Your task to perform on an android device: turn on the 24-hour format for clock Image 0: 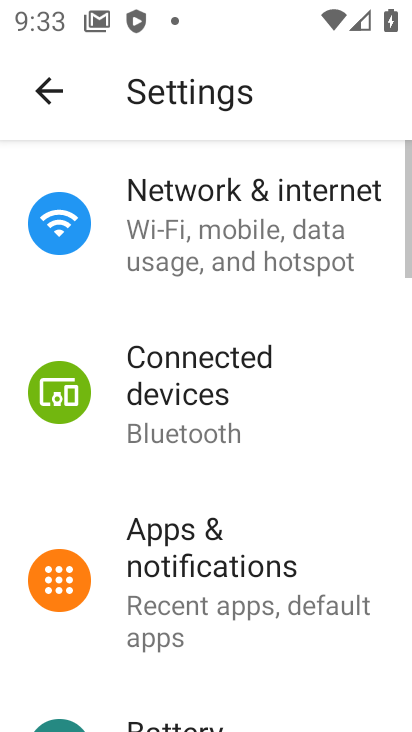
Step 0: press home button
Your task to perform on an android device: turn on the 24-hour format for clock Image 1: 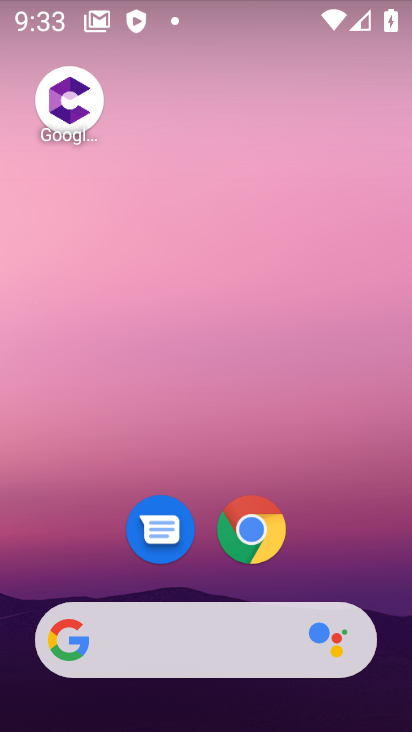
Step 1: drag from (367, 569) to (176, 48)
Your task to perform on an android device: turn on the 24-hour format for clock Image 2: 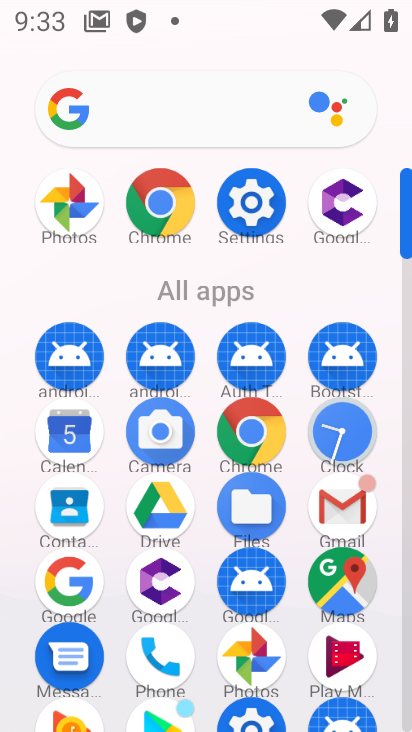
Step 2: click (343, 433)
Your task to perform on an android device: turn on the 24-hour format for clock Image 3: 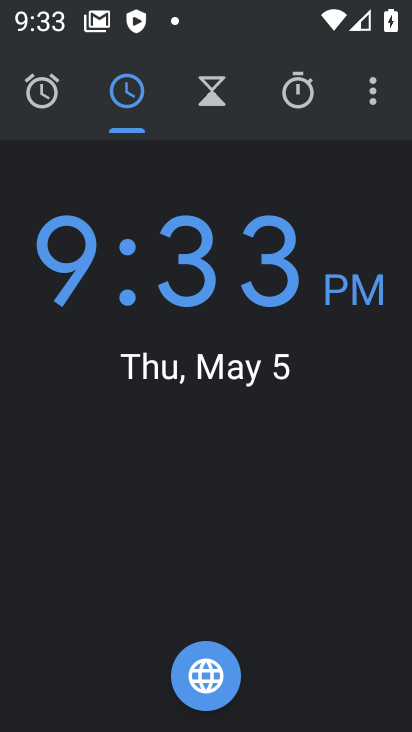
Step 3: click (367, 94)
Your task to perform on an android device: turn on the 24-hour format for clock Image 4: 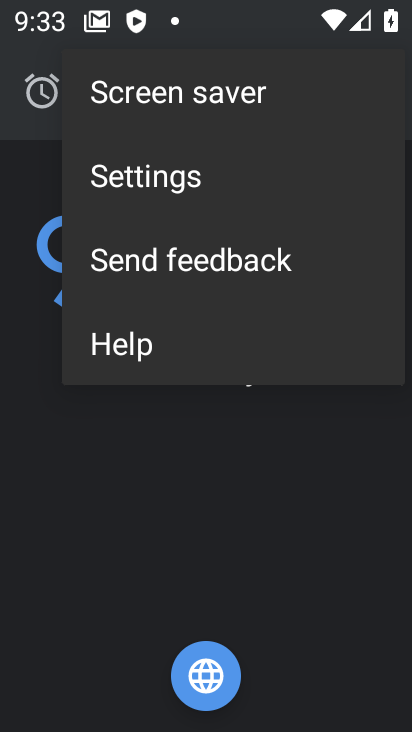
Step 4: click (161, 178)
Your task to perform on an android device: turn on the 24-hour format for clock Image 5: 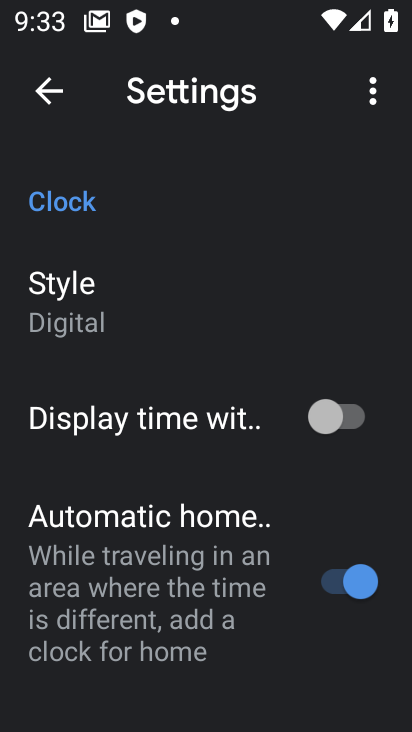
Step 5: drag from (197, 531) to (99, 157)
Your task to perform on an android device: turn on the 24-hour format for clock Image 6: 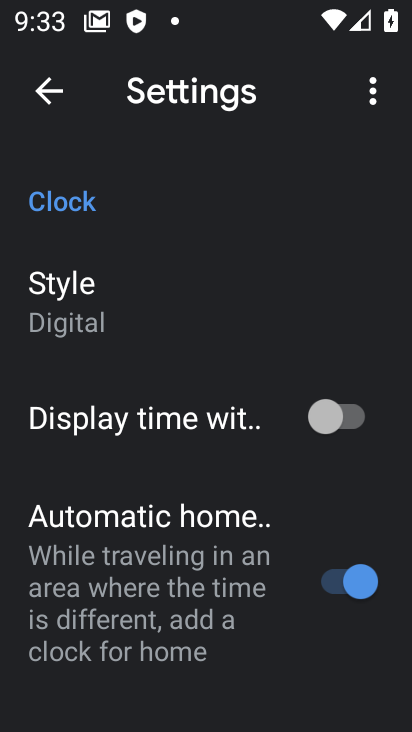
Step 6: drag from (223, 478) to (175, 68)
Your task to perform on an android device: turn on the 24-hour format for clock Image 7: 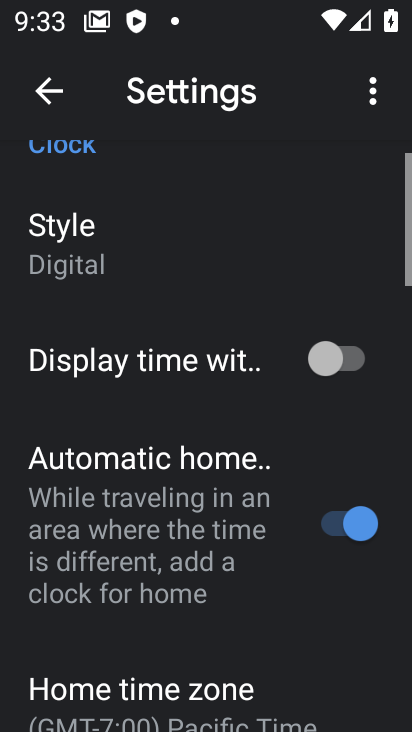
Step 7: drag from (171, 308) to (179, 6)
Your task to perform on an android device: turn on the 24-hour format for clock Image 8: 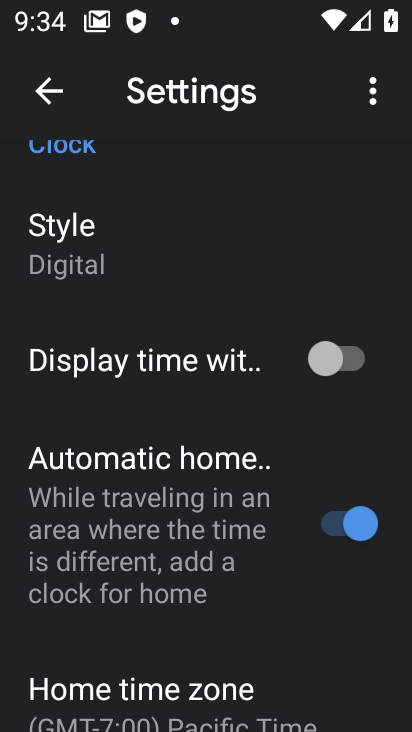
Step 8: drag from (173, 591) to (108, 43)
Your task to perform on an android device: turn on the 24-hour format for clock Image 9: 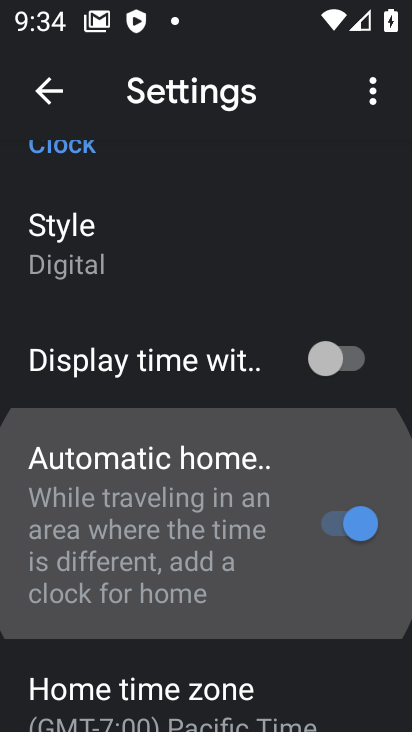
Step 9: drag from (166, 602) to (102, 68)
Your task to perform on an android device: turn on the 24-hour format for clock Image 10: 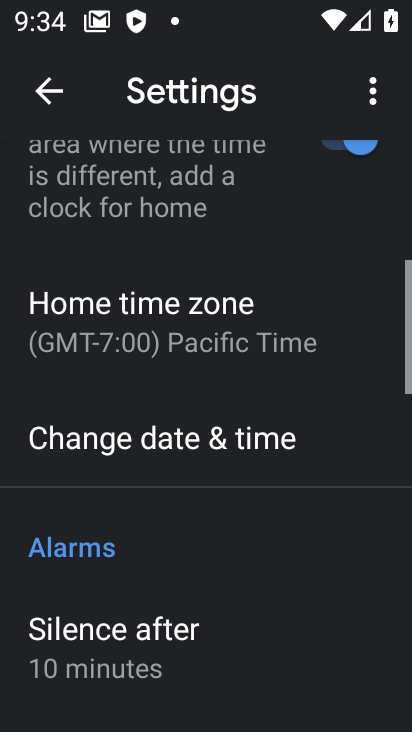
Step 10: drag from (250, 511) to (129, 117)
Your task to perform on an android device: turn on the 24-hour format for clock Image 11: 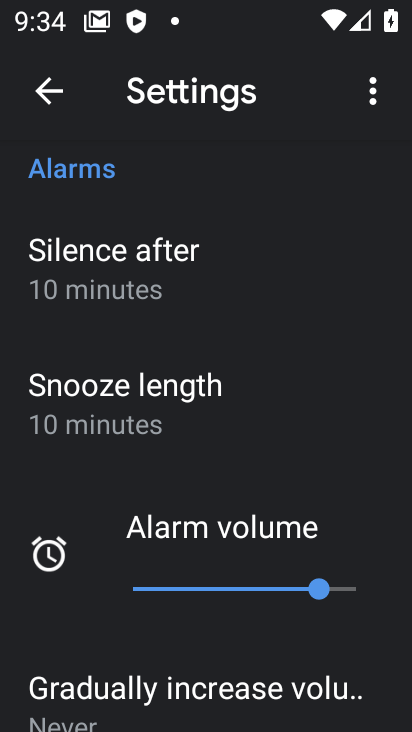
Step 11: click (182, 446)
Your task to perform on an android device: turn on the 24-hour format for clock Image 12: 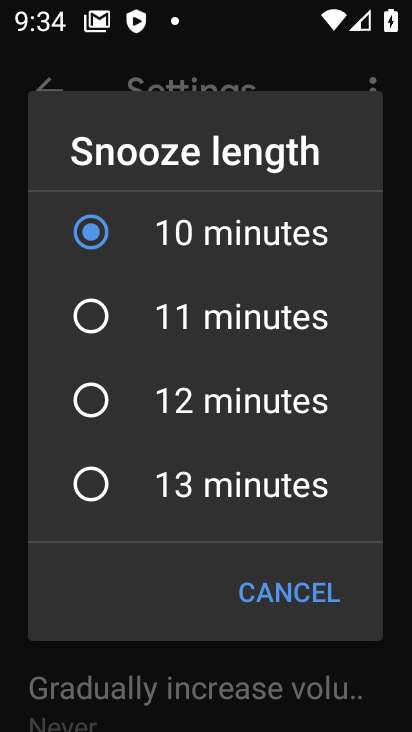
Step 12: click (274, 590)
Your task to perform on an android device: turn on the 24-hour format for clock Image 13: 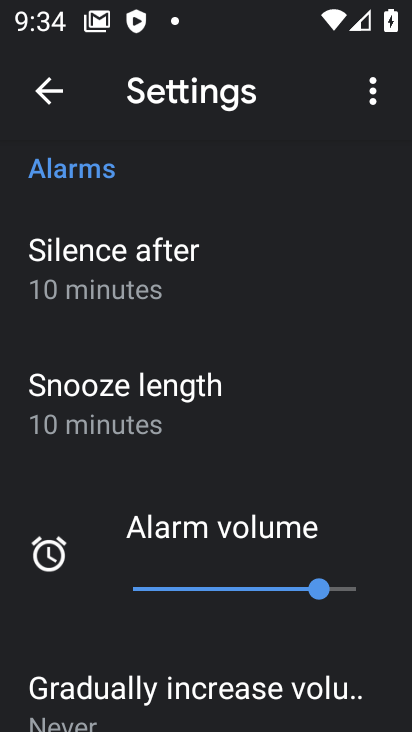
Step 13: click (50, 97)
Your task to perform on an android device: turn on the 24-hour format for clock Image 14: 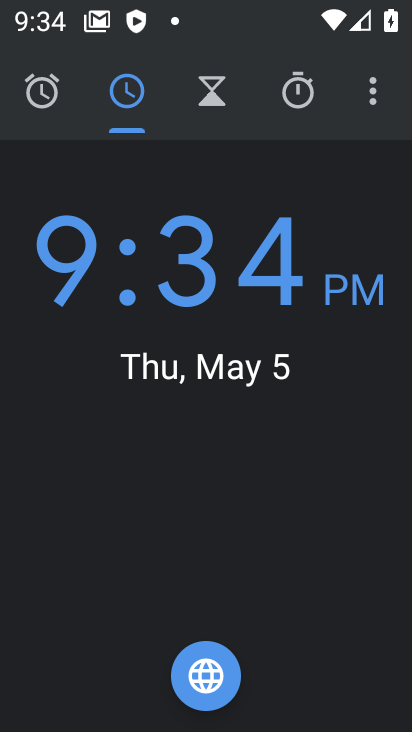
Step 14: click (366, 98)
Your task to perform on an android device: turn on the 24-hour format for clock Image 15: 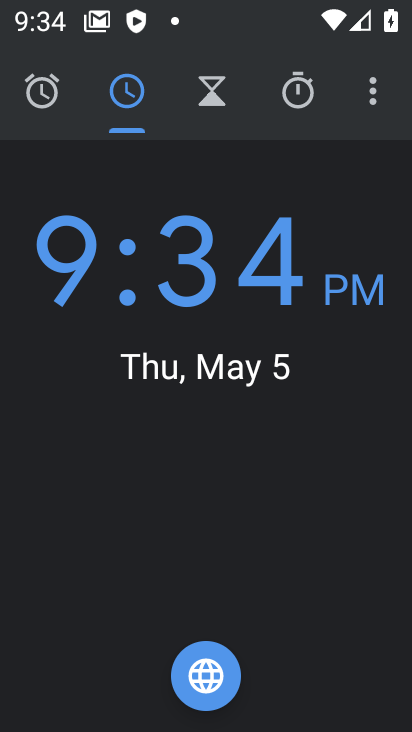
Step 15: click (369, 88)
Your task to perform on an android device: turn on the 24-hour format for clock Image 16: 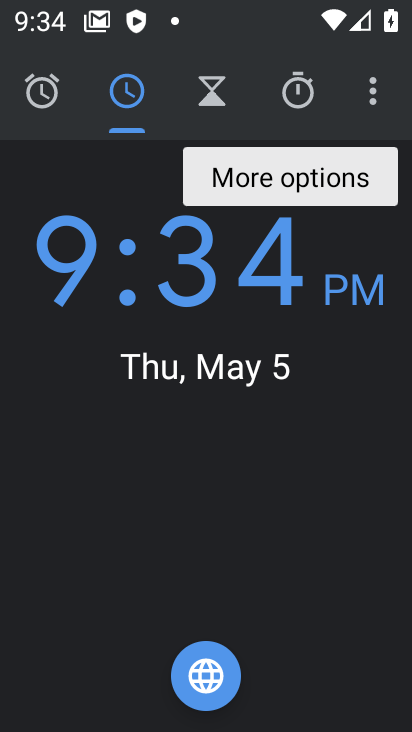
Step 16: click (348, 161)
Your task to perform on an android device: turn on the 24-hour format for clock Image 17: 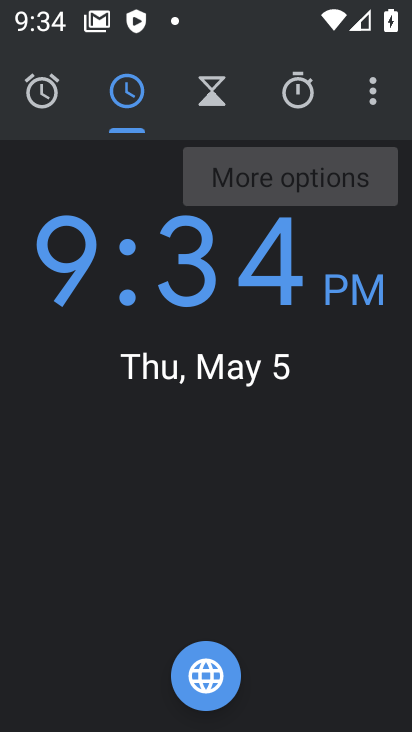
Step 17: click (349, 179)
Your task to perform on an android device: turn on the 24-hour format for clock Image 18: 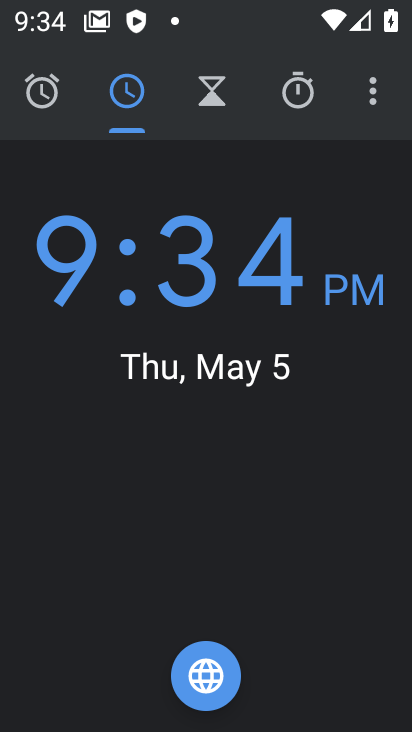
Step 18: click (349, 179)
Your task to perform on an android device: turn on the 24-hour format for clock Image 19: 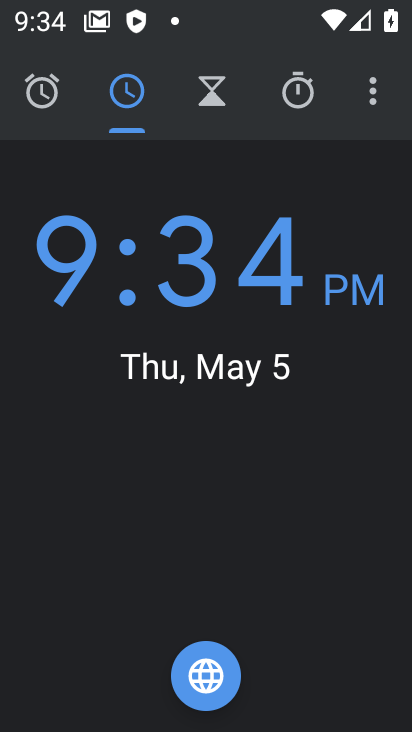
Step 19: click (350, 180)
Your task to perform on an android device: turn on the 24-hour format for clock Image 20: 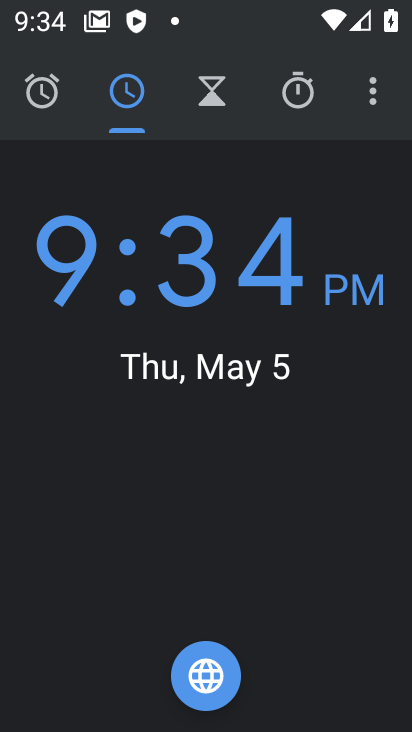
Step 20: click (350, 180)
Your task to perform on an android device: turn on the 24-hour format for clock Image 21: 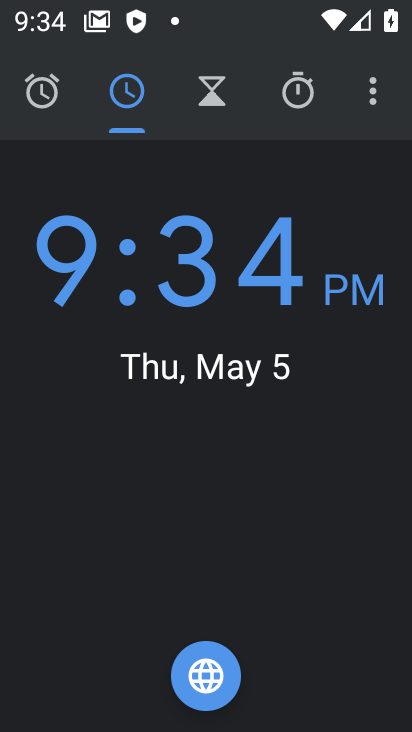
Step 21: click (380, 86)
Your task to perform on an android device: turn on the 24-hour format for clock Image 22: 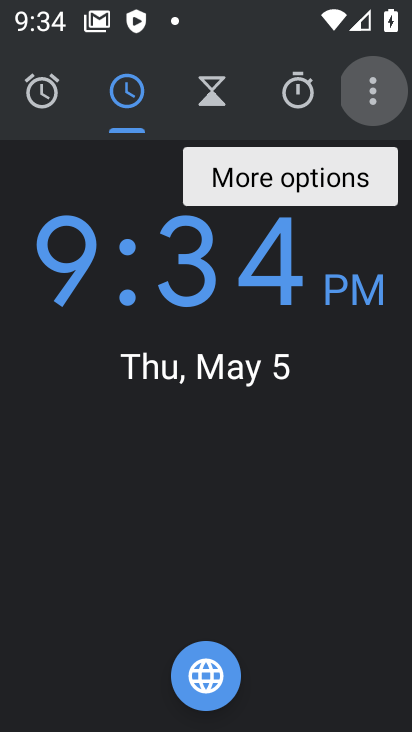
Step 22: click (364, 93)
Your task to perform on an android device: turn on the 24-hour format for clock Image 23: 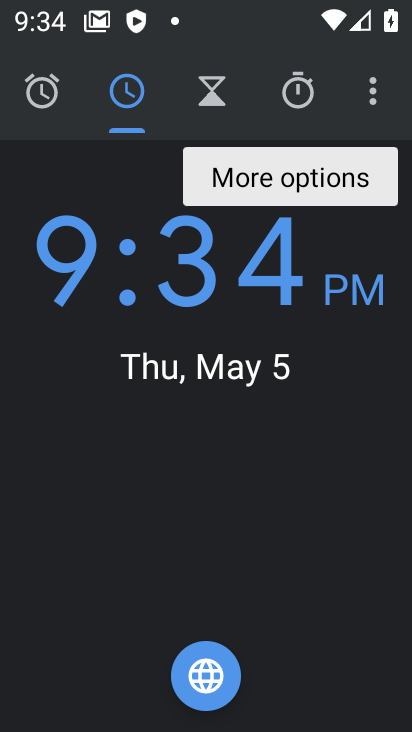
Step 23: click (364, 93)
Your task to perform on an android device: turn on the 24-hour format for clock Image 24: 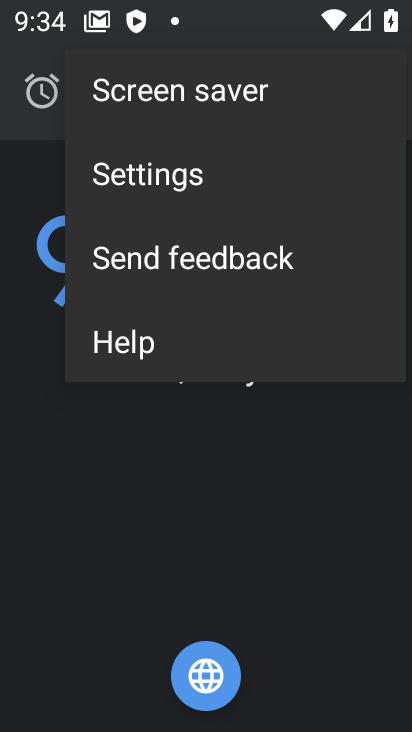
Step 24: click (364, 93)
Your task to perform on an android device: turn on the 24-hour format for clock Image 25: 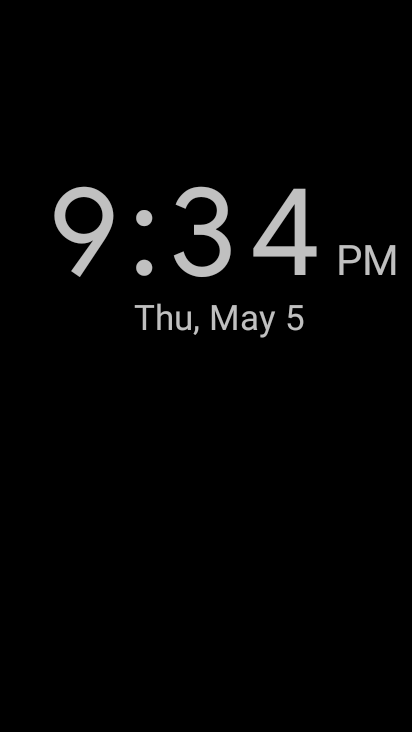
Step 25: press home button
Your task to perform on an android device: turn on the 24-hour format for clock Image 26: 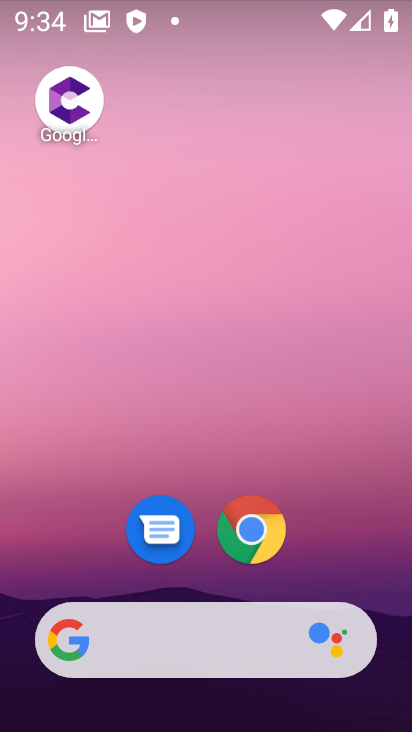
Step 26: drag from (322, 424) to (120, 31)
Your task to perform on an android device: turn on the 24-hour format for clock Image 27: 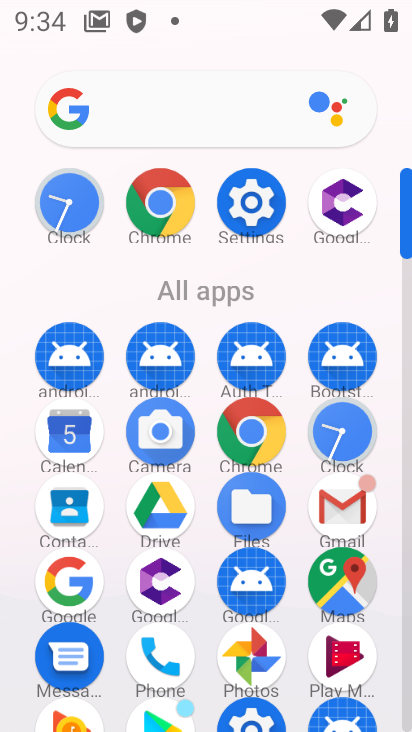
Step 27: click (245, 204)
Your task to perform on an android device: turn on the 24-hour format for clock Image 28: 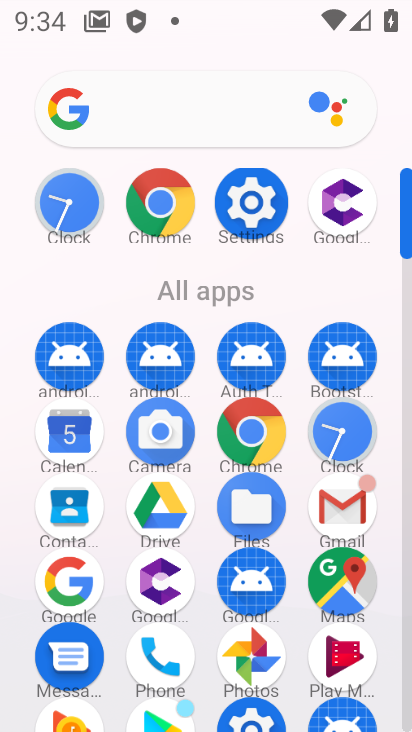
Step 28: click (245, 204)
Your task to perform on an android device: turn on the 24-hour format for clock Image 29: 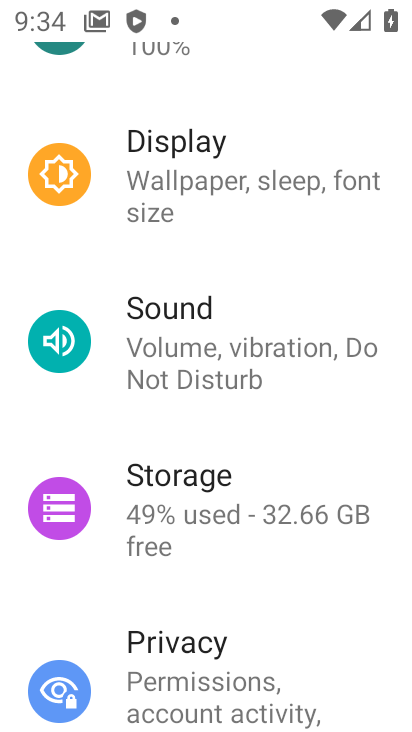
Step 29: click (245, 204)
Your task to perform on an android device: turn on the 24-hour format for clock Image 30: 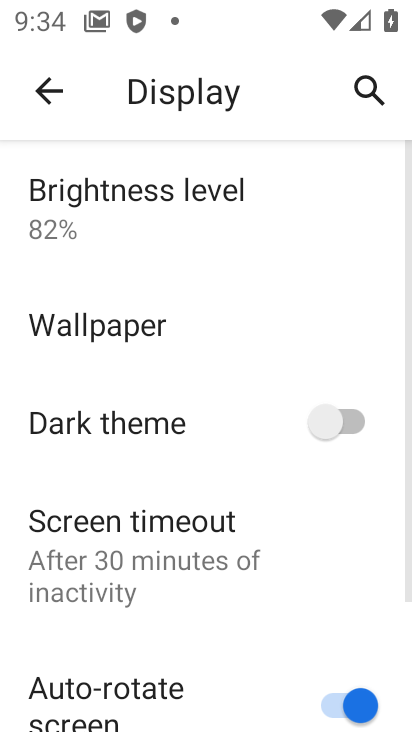
Step 30: press home button
Your task to perform on an android device: turn on the 24-hour format for clock Image 31: 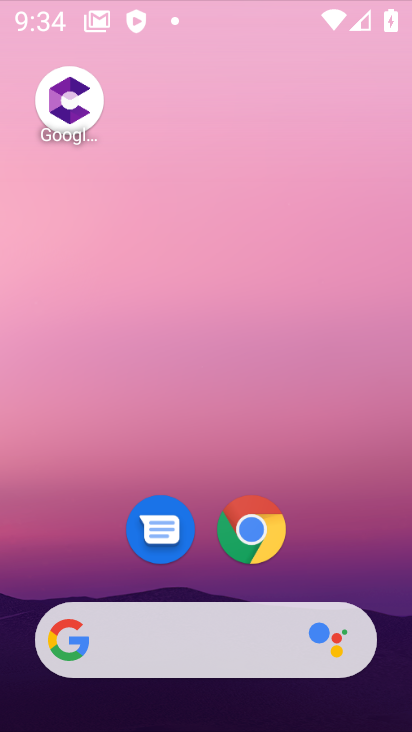
Step 31: press home button
Your task to perform on an android device: turn on the 24-hour format for clock Image 32: 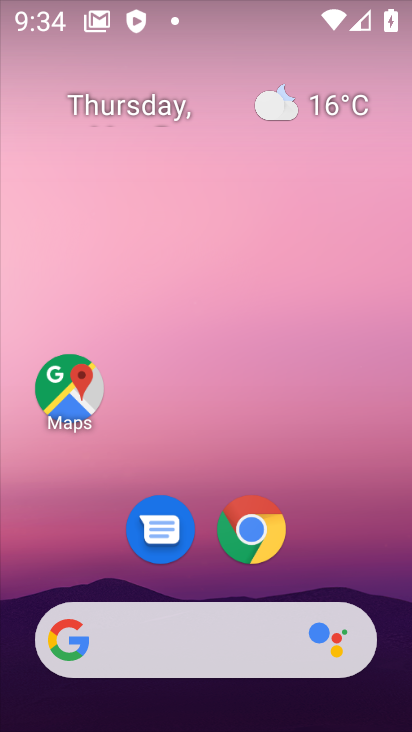
Step 32: drag from (328, 491) to (184, 162)
Your task to perform on an android device: turn on the 24-hour format for clock Image 33: 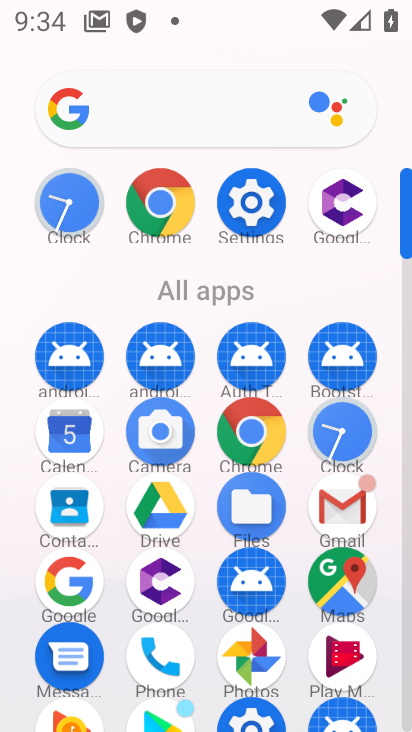
Step 33: click (335, 425)
Your task to perform on an android device: turn on the 24-hour format for clock Image 34: 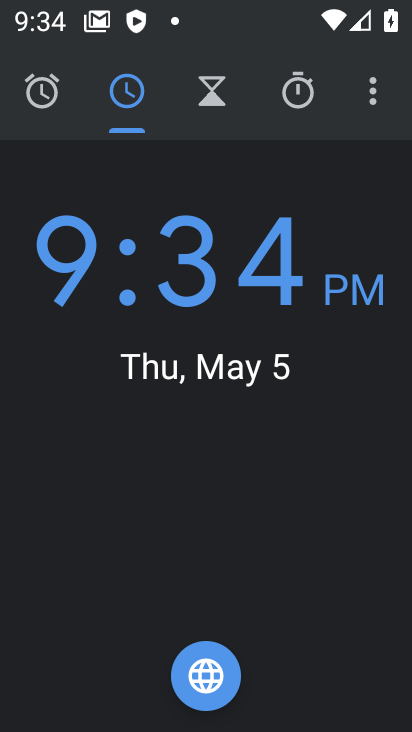
Step 34: click (366, 94)
Your task to perform on an android device: turn on the 24-hour format for clock Image 35: 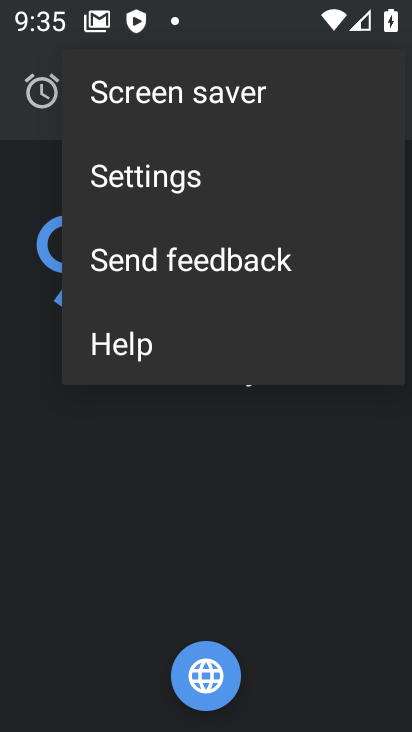
Step 35: click (120, 182)
Your task to perform on an android device: turn on the 24-hour format for clock Image 36: 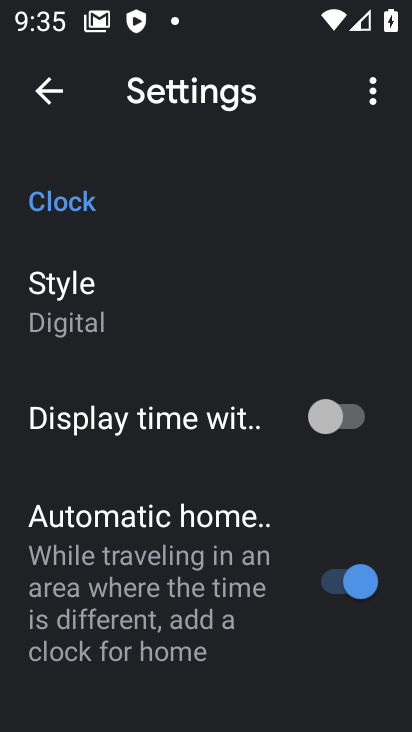
Step 36: drag from (260, 620) to (184, 254)
Your task to perform on an android device: turn on the 24-hour format for clock Image 37: 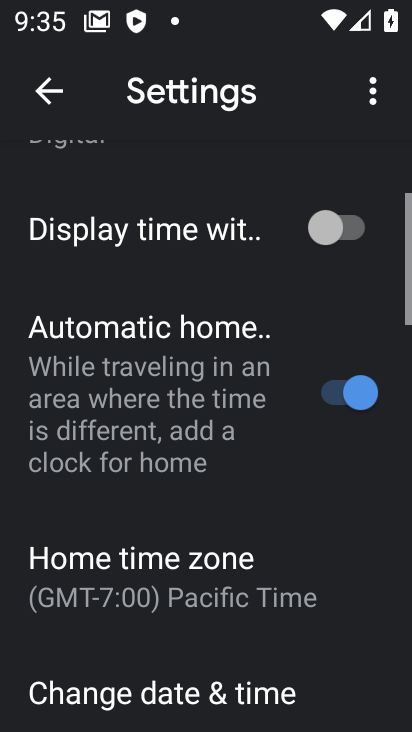
Step 37: drag from (280, 538) to (196, 146)
Your task to perform on an android device: turn on the 24-hour format for clock Image 38: 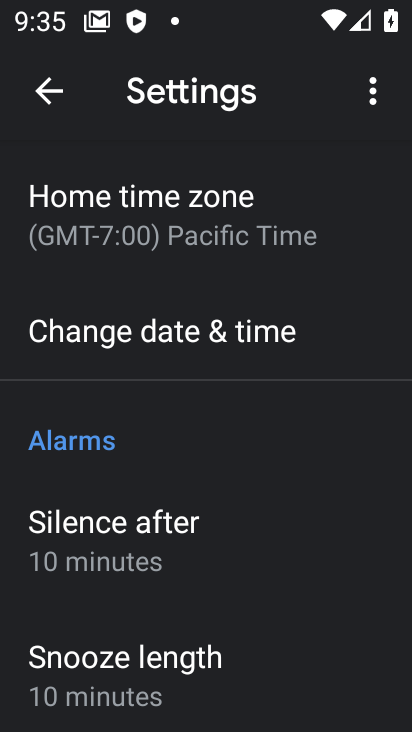
Step 38: click (190, 327)
Your task to perform on an android device: turn on the 24-hour format for clock Image 39: 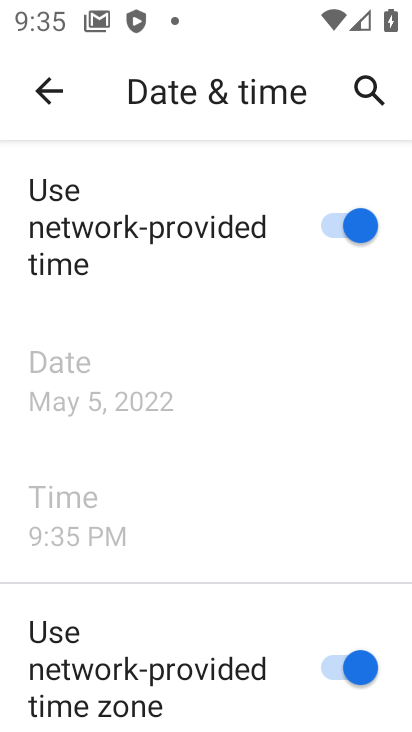
Step 39: drag from (189, 597) to (146, 205)
Your task to perform on an android device: turn on the 24-hour format for clock Image 40: 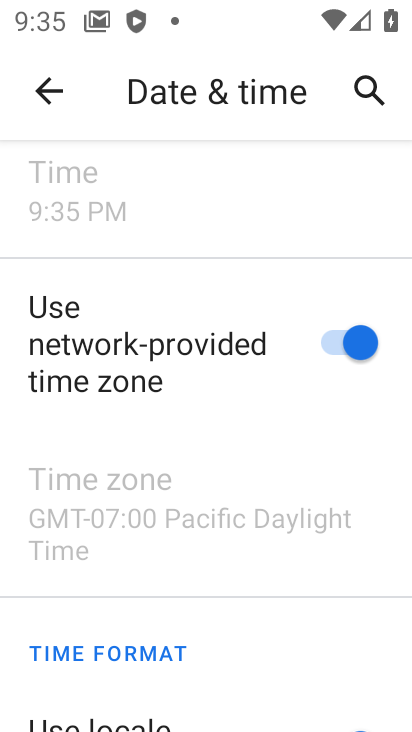
Step 40: drag from (164, 577) to (175, 119)
Your task to perform on an android device: turn on the 24-hour format for clock Image 41: 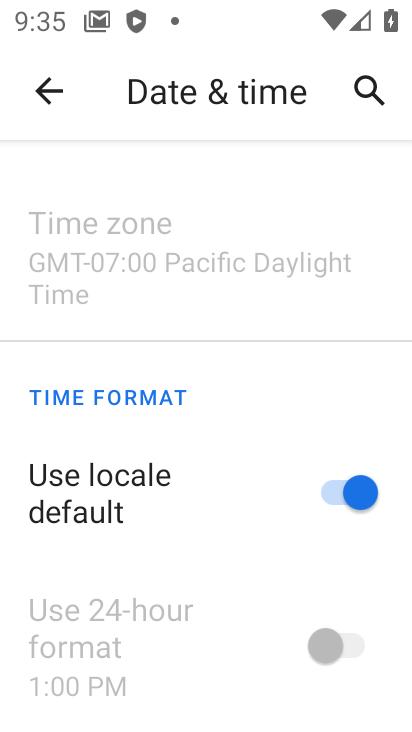
Step 41: click (324, 658)
Your task to perform on an android device: turn on the 24-hour format for clock Image 42: 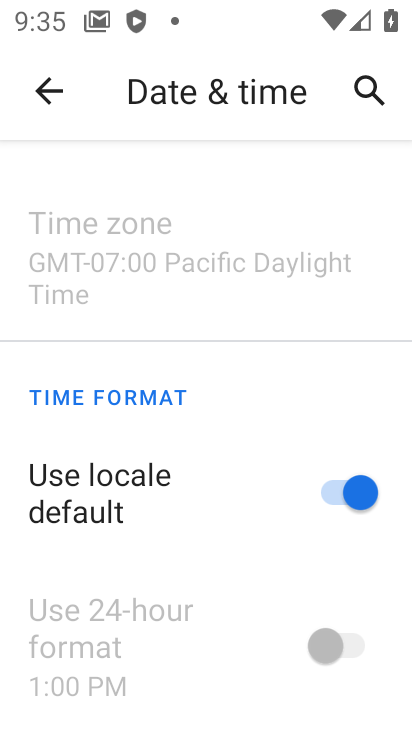
Step 42: click (329, 651)
Your task to perform on an android device: turn on the 24-hour format for clock Image 43: 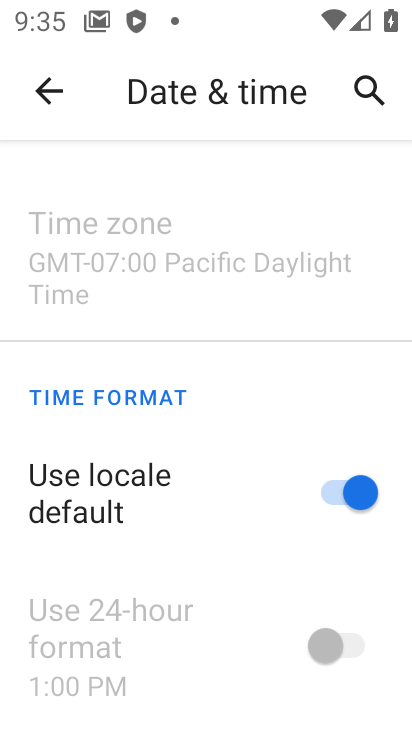
Step 43: click (330, 635)
Your task to perform on an android device: turn on the 24-hour format for clock Image 44: 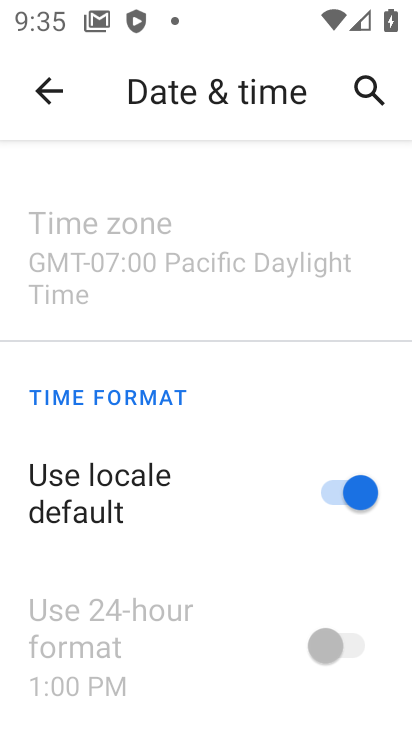
Step 44: click (350, 495)
Your task to perform on an android device: turn on the 24-hour format for clock Image 45: 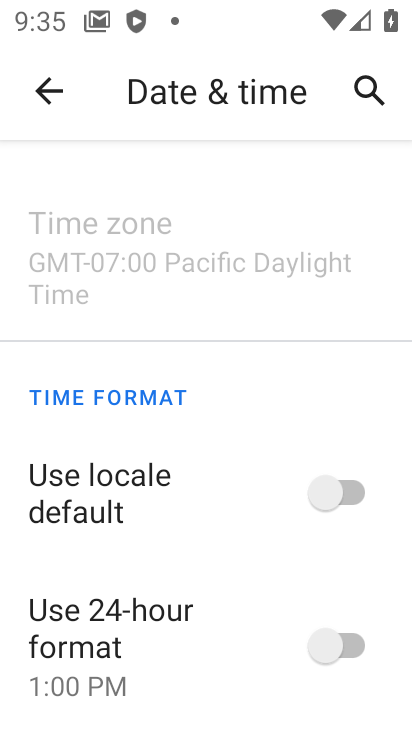
Step 45: click (353, 487)
Your task to perform on an android device: turn on the 24-hour format for clock Image 46: 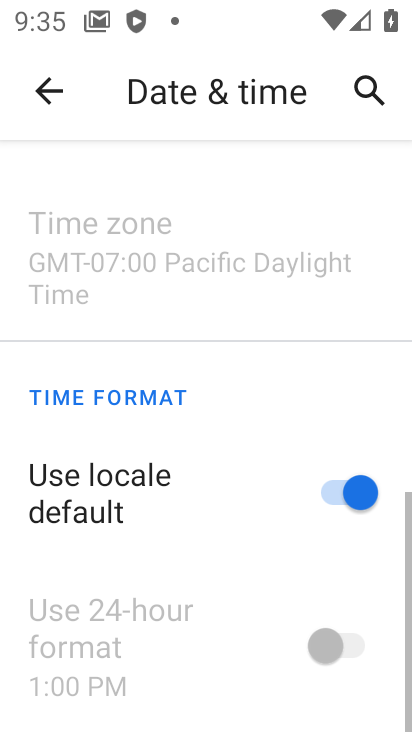
Step 46: click (327, 644)
Your task to perform on an android device: turn on the 24-hour format for clock Image 47: 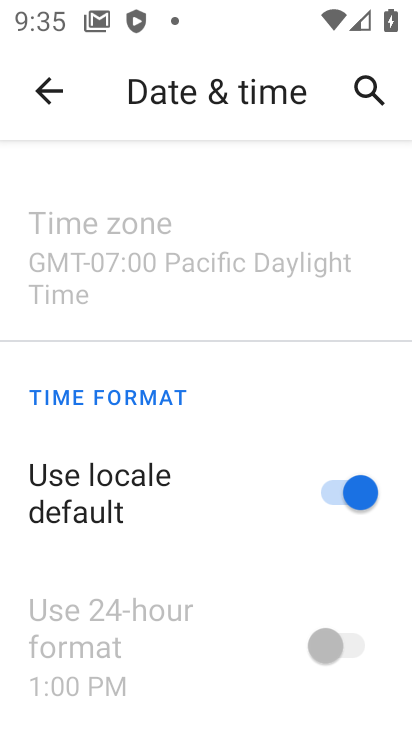
Step 47: drag from (279, 564) to (241, 158)
Your task to perform on an android device: turn on the 24-hour format for clock Image 48: 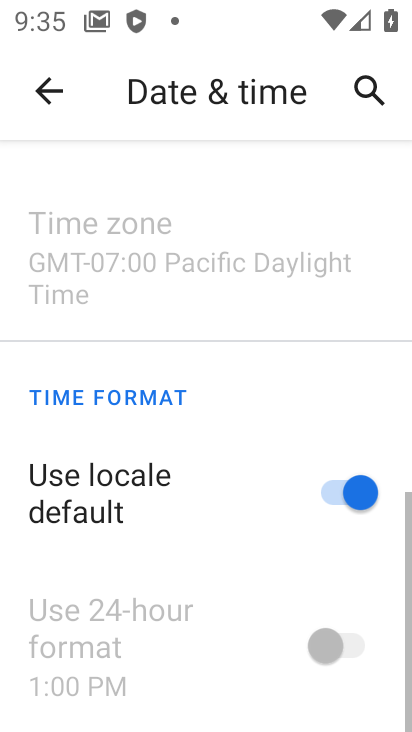
Step 48: click (327, 647)
Your task to perform on an android device: turn on the 24-hour format for clock Image 49: 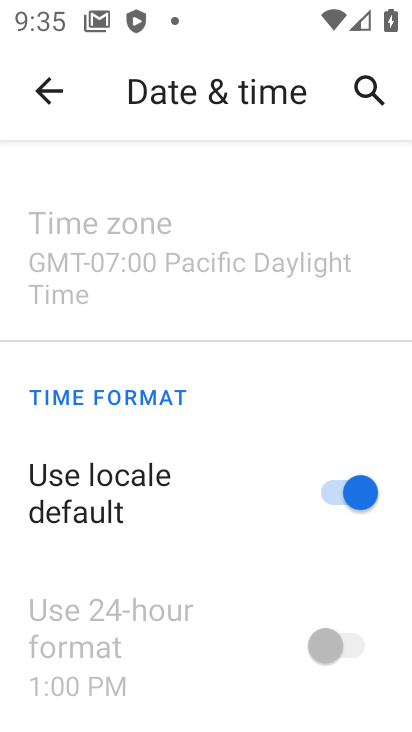
Step 49: click (348, 486)
Your task to perform on an android device: turn on the 24-hour format for clock Image 50: 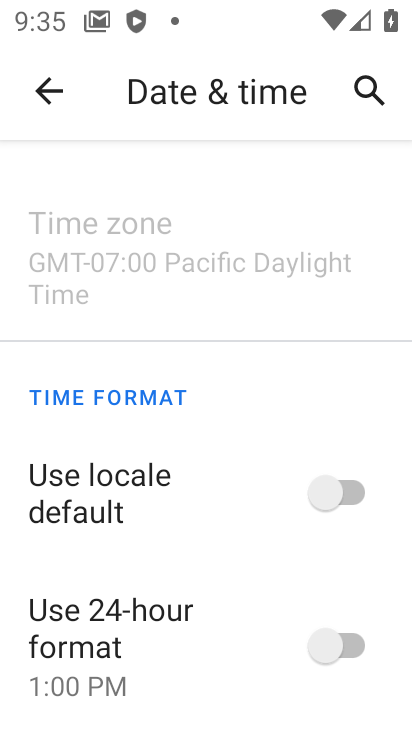
Step 50: click (324, 650)
Your task to perform on an android device: turn on the 24-hour format for clock Image 51: 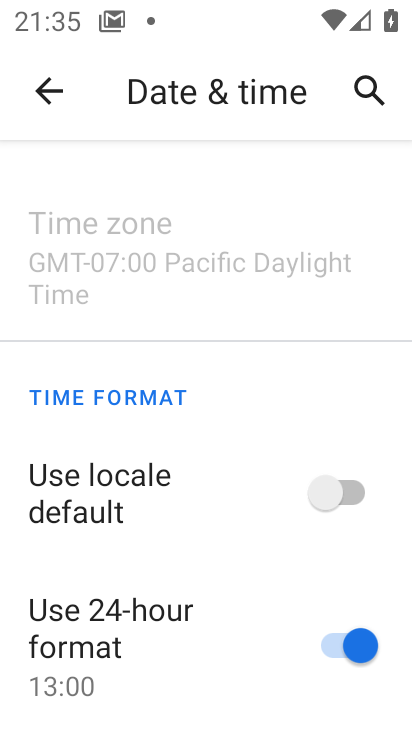
Step 51: task complete